Your task to perform on an android device: Search for "bose quietcomfort 35" on newegg.com, select the first entry, and add it to the cart. Image 0: 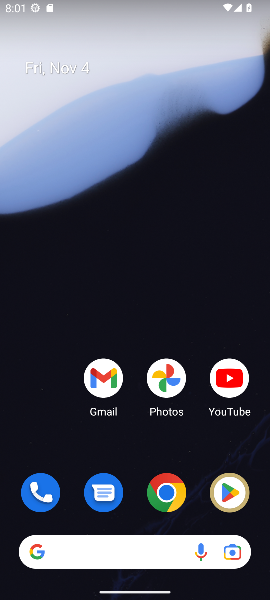
Step 0: drag from (134, 460) to (103, 71)
Your task to perform on an android device: Search for "bose quietcomfort 35" on newegg.com, select the first entry, and add it to the cart. Image 1: 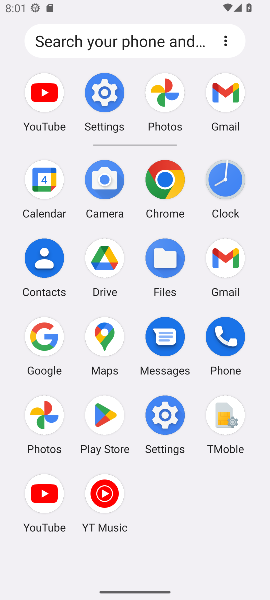
Step 1: click (166, 181)
Your task to perform on an android device: Search for "bose quietcomfort 35" on newegg.com, select the first entry, and add it to the cart. Image 2: 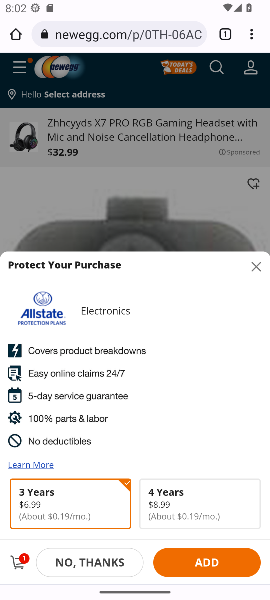
Step 2: click (141, 39)
Your task to perform on an android device: Search for "bose quietcomfort 35" on newegg.com, select the first entry, and add it to the cart. Image 3: 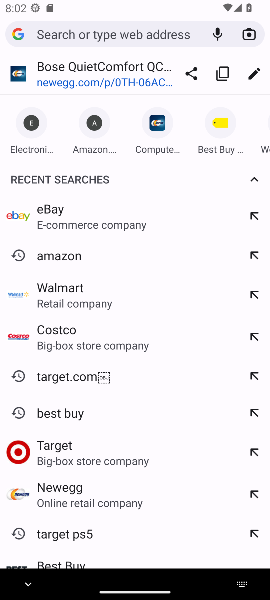
Step 3: type "newegg.com"
Your task to perform on an android device: Search for "bose quietcomfort 35" on newegg.com, select the first entry, and add it to the cart. Image 4: 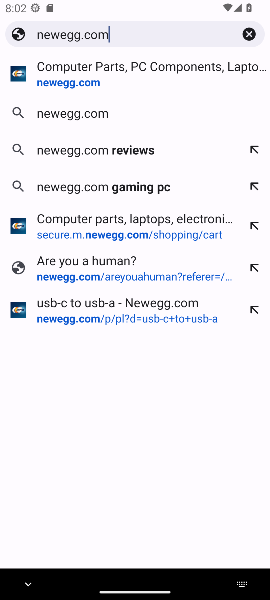
Step 4: press enter
Your task to perform on an android device: Search for "bose quietcomfort 35" on newegg.com, select the first entry, and add it to the cart. Image 5: 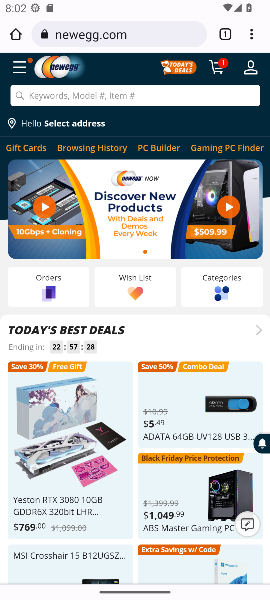
Step 5: click (177, 99)
Your task to perform on an android device: Search for "bose quietcomfort 35" on newegg.com, select the first entry, and add it to the cart. Image 6: 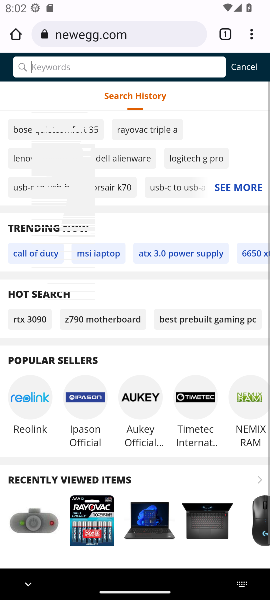
Step 6: type "bose quietcomfort 35"
Your task to perform on an android device: Search for "bose quietcomfort 35" on newegg.com, select the first entry, and add it to the cart. Image 7: 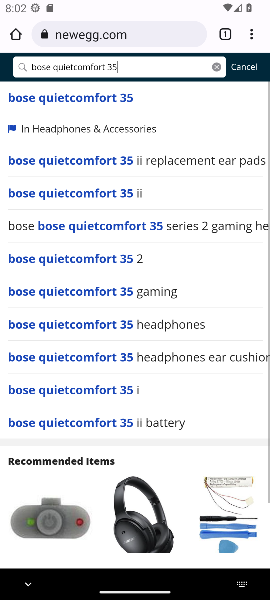
Step 7: press enter
Your task to perform on an android device: Search for "bose quietcomfort 35" on newegg.com, select the first entry, and add it to the cart. Image 8: 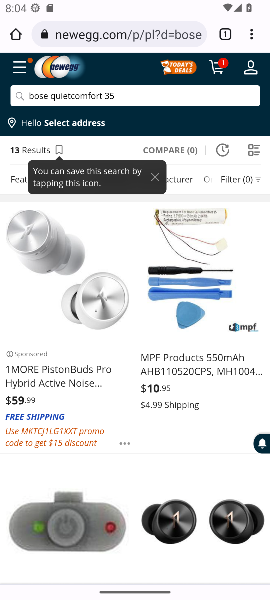
Step 8: drag from (195, 408) to (189, 183)
Your task to perform on an android device: Search for "bose quietcomfort 35" on newegg.com, select the first entry, and add it to the cart. Image 9: 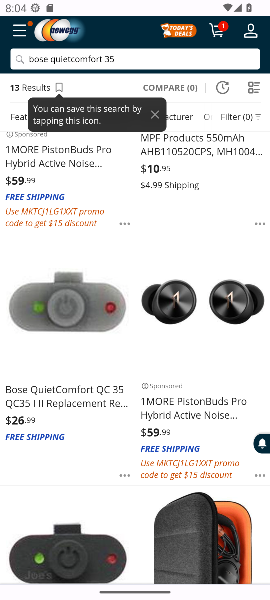
Step 9: click (100, 376)
Your task to perform on an android device: Search for "bose quietcomfort 35" on newegg.com, select the first entry, and add it to the cart. Image 10: 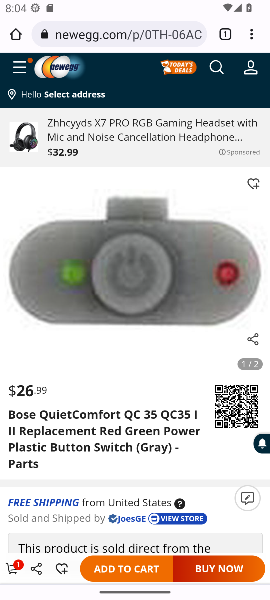
Step 10: click (12, 567)
Your task to perform on an android device: Search for "bose quietcomfort 35" on newegg.com, select the first entry, and add it to the cart. Image 11: 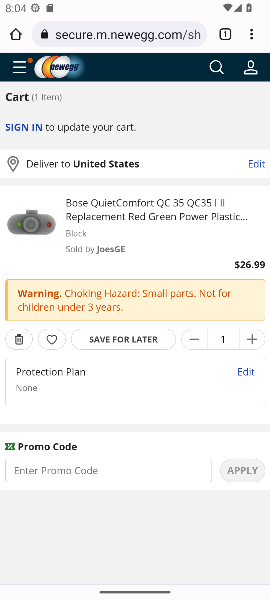
Step 11: task complete